Your task to perform on an android device: open chrome privacy settings Image 0: 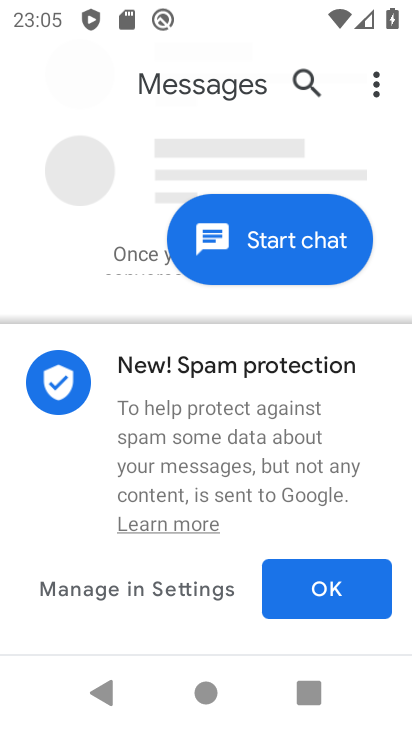
Step 0: press home button
Your task to perform on an android device: open chrome privacy settings Image 1: 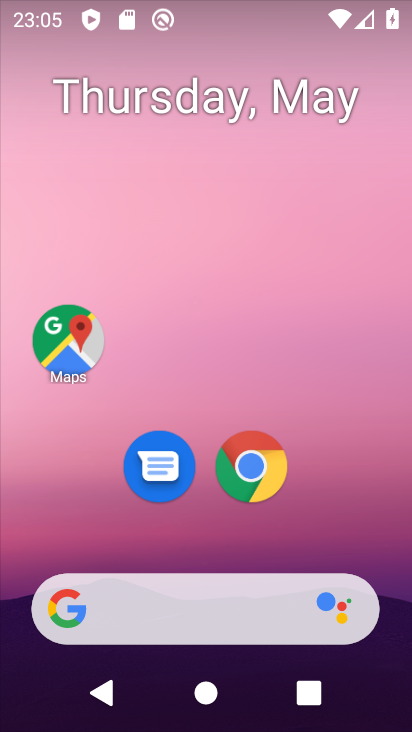
Step 1: click (252, 469)
Your task to perform on an android device: open chrome privacy settings Image 2: 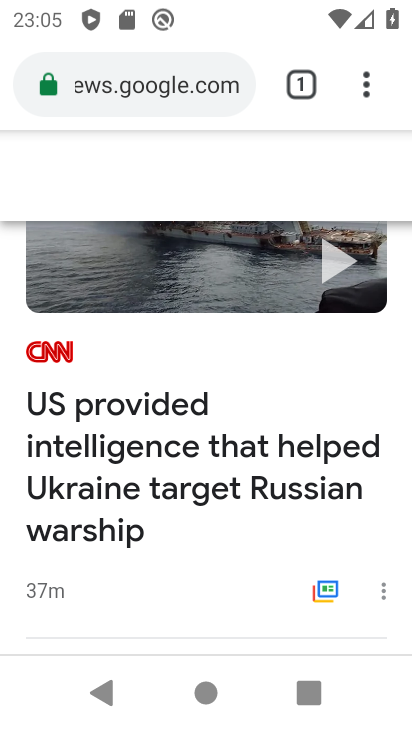
Step 2: drag from (367, 93) to (233, 521)
Your task to perform on an android device: open chrome privacy settings Image 3: 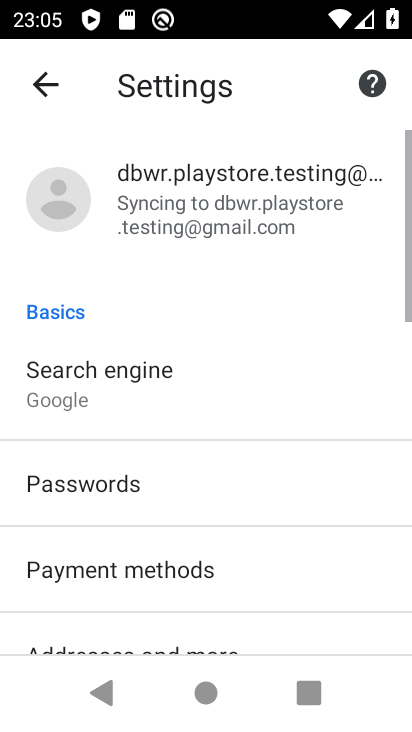
Step 3: drag from (189, 566) to (241, 33)
Your task to perform on an android device: open chrome privacy settings Image 4: 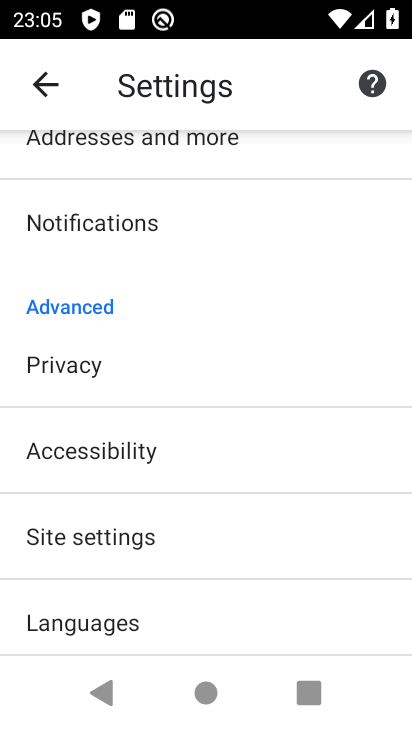
Step 4: click (138, 361)
Your task to perform on an android device: open chrome privacy settings Image 5: 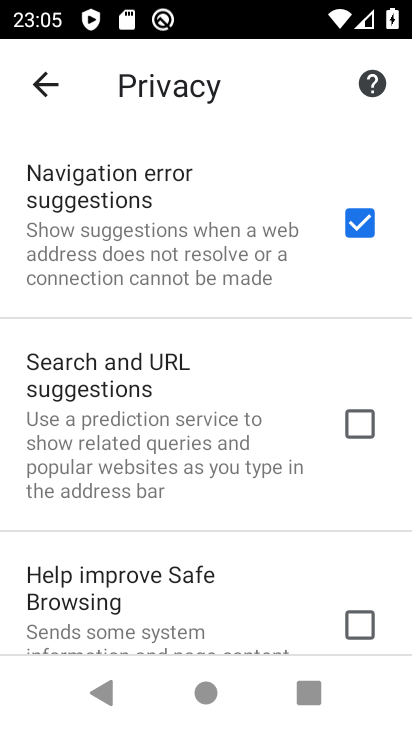
Step 5: task complete